Your task to perform on an android device: Go to location settings Image 0: 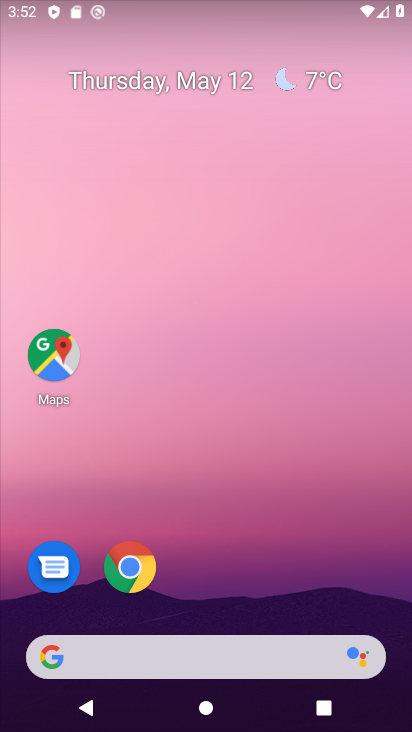
Step 0: drag from (225, 523) to (261, 198)
Your task to perform on an android device: Go to location settings Image 1: 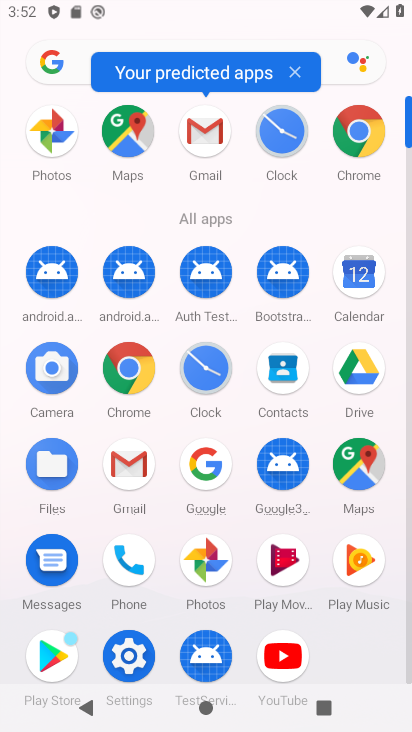
Step 1: click (129, 664)
Your task to perform on an android device: Go to location settings Image 2: 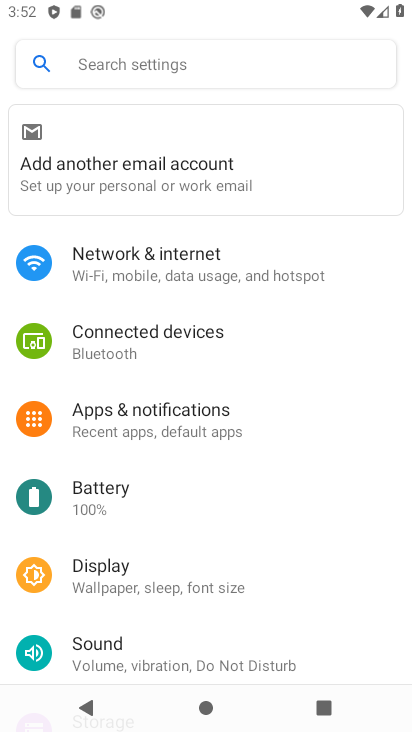
Step 2: drag from (203, 585) to (246, 198)
Your task to perform on an android device: Go to location settings Image 3: 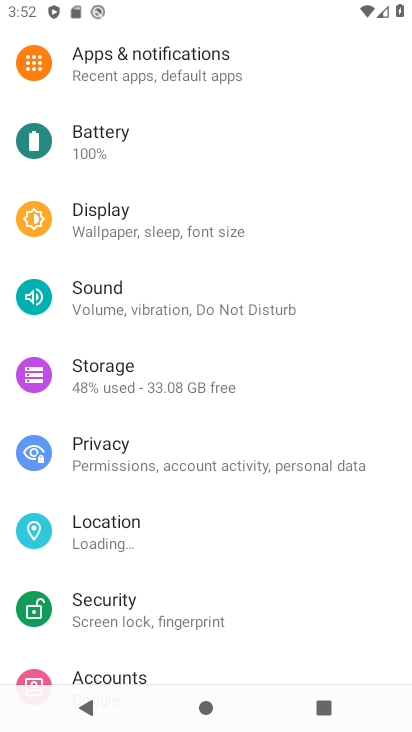
Step 3: click (207, 538)
Your task to perform on an android device: Go to location settings Image 4: 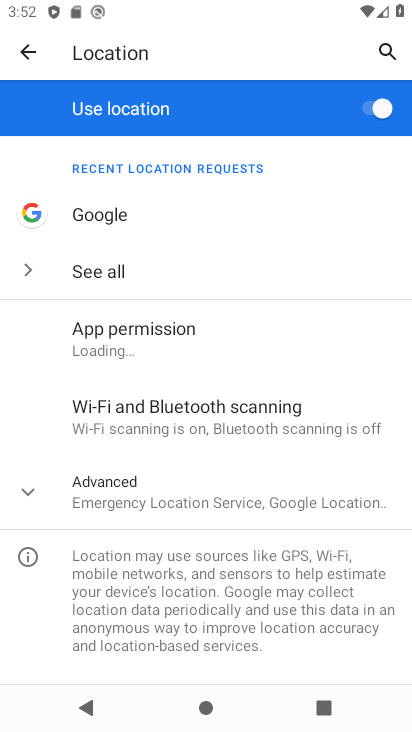
Step 4: task complete